Your task to perform on an android device: change the clock display to show seconds Image 0: 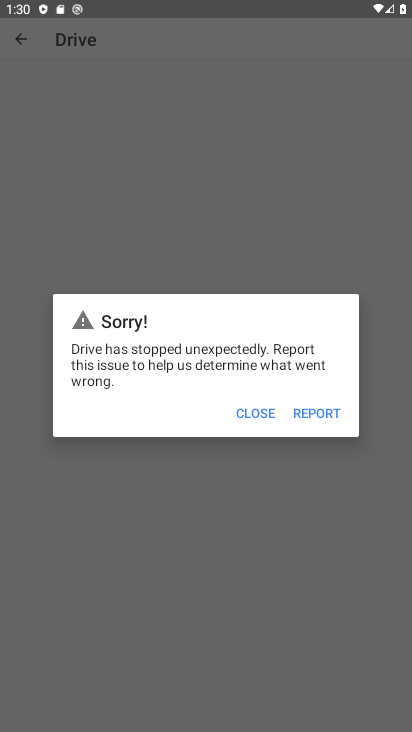
Step 0: press home button
Your task to perform on an android device: change the clock display to show seconds Image 1: 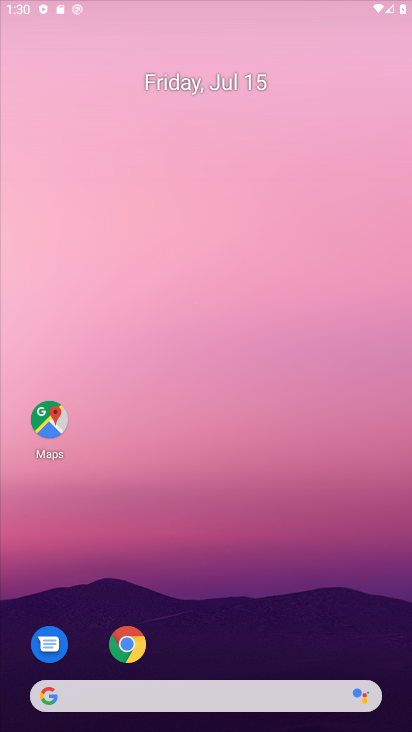
Step 1: drag from (357, 657) to (153, 9)
Your task to perform on an android device: change the clock display to show seconds Image 2: 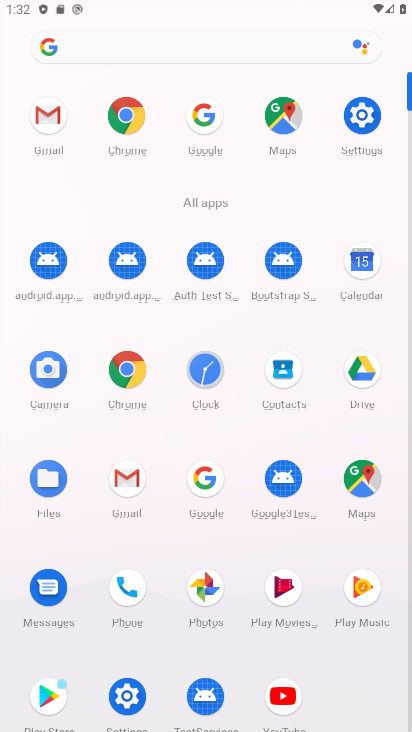
Step 2: click (211, 362)
Your task to perform on an android device: change the clock display to show seconds Image 3: 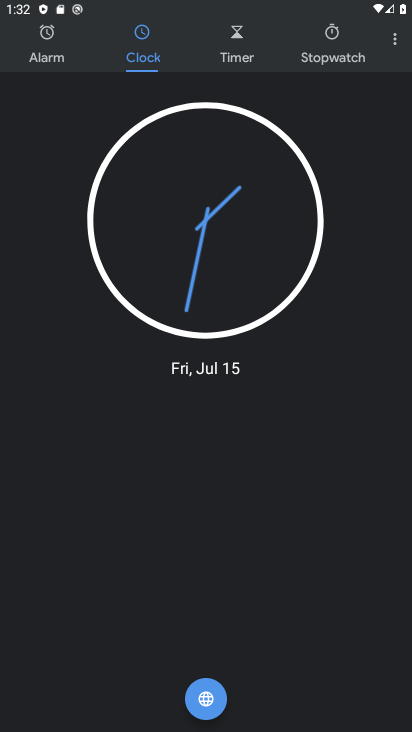
Step 3: click (395, 26)
Your task to perform on an android device: change the clock display to show seconds Image 4: 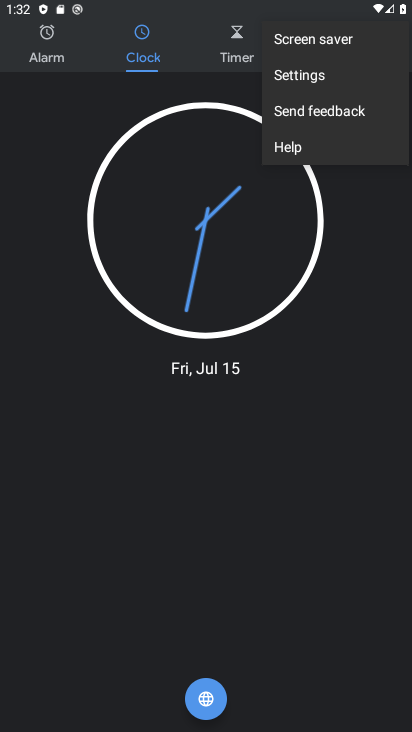
Step 4: click (328, 82)
Your task to perform on an android device: change the clock display to show seconds Image 5: 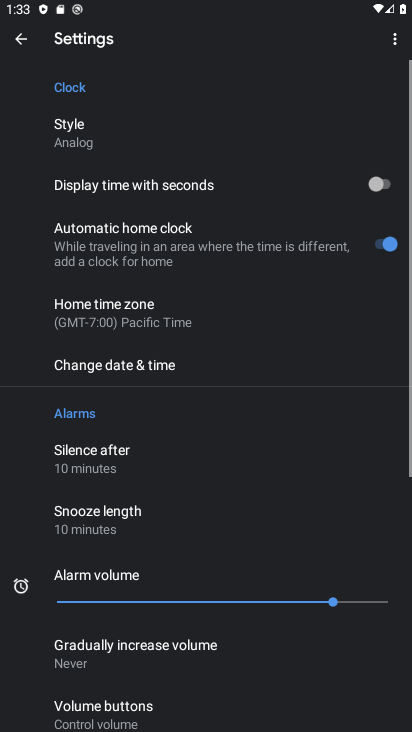
Step 5: click (360, 168)
Your task to perform on an android device: change the clock display to show seconds Image 6: 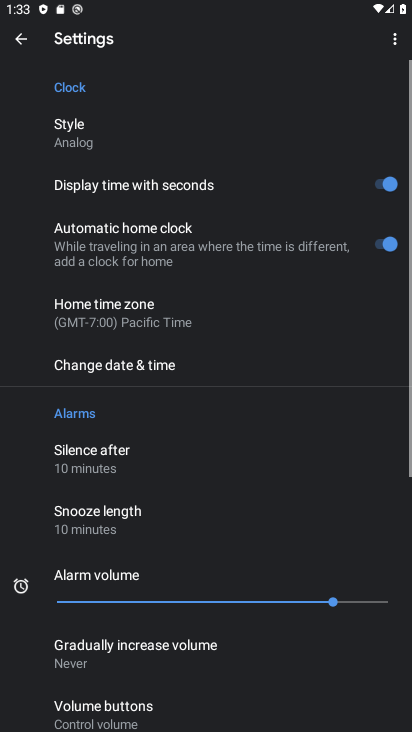
Step 6: task complete